Your task to perform on an android device: refresh tabs in the chrome app Image 0: 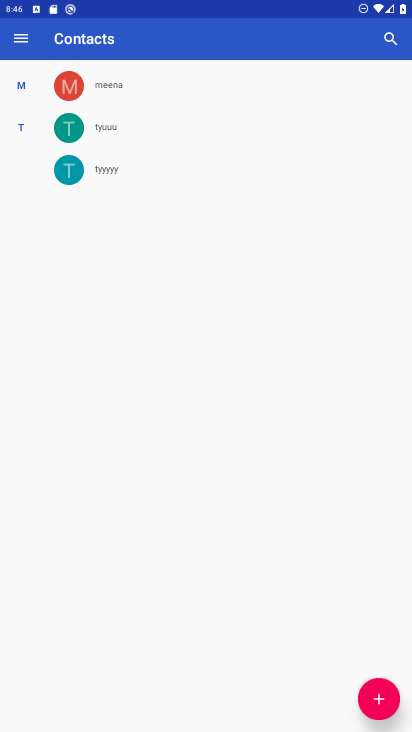
Step 0: press home button
Your task to perform on an android device: refresh tabs in the chrome app Image 1: 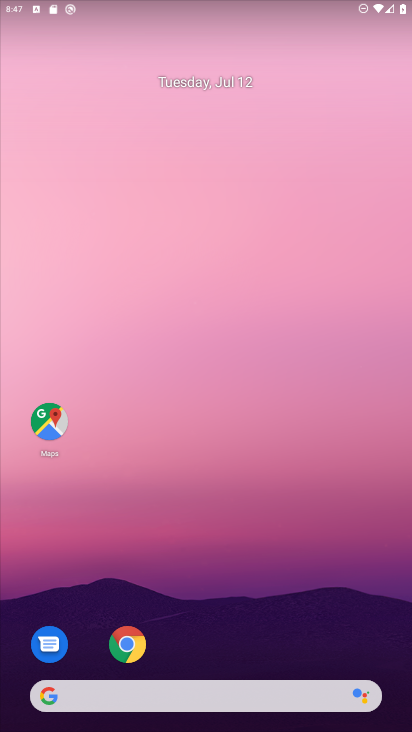
Step 1: click (129, 648)
Your task to perform on an android device: refresh tabs in the chrome app Image 2: 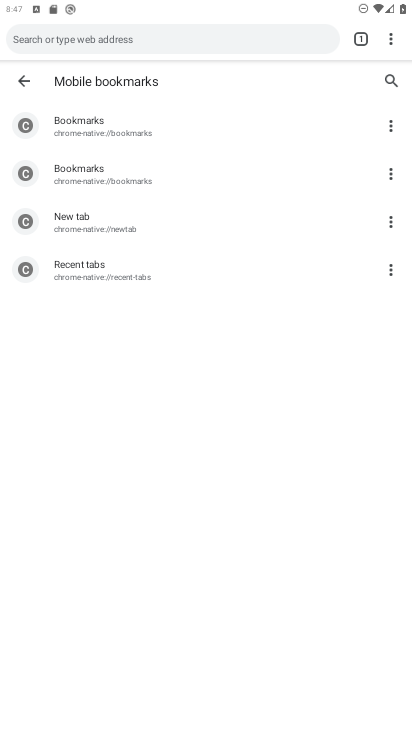
Step 2: click (389, 43)
Your task to perform on an android device: refresh tabs in the chrome app Image 3: 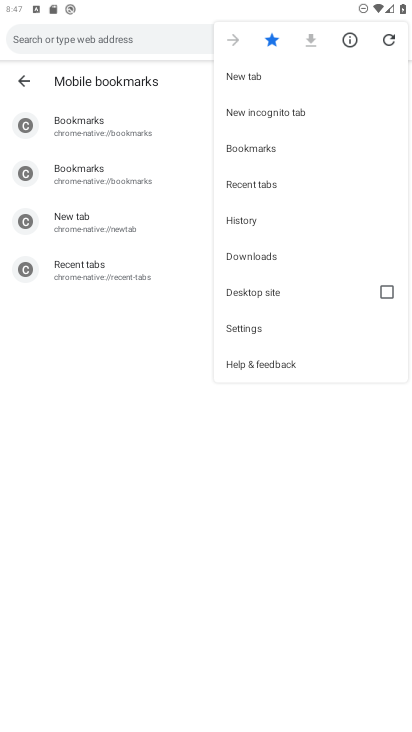
Step 3: click (388, 35)
Your task to perform on an android device: refresh tabs in the chrome app Image 4: 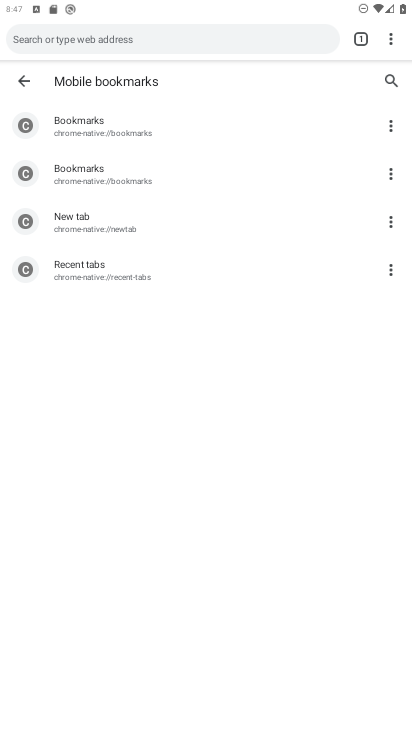
Step 4: task complete